Your task to perform on an android device: turn off javascript in the chrome app Image 0: 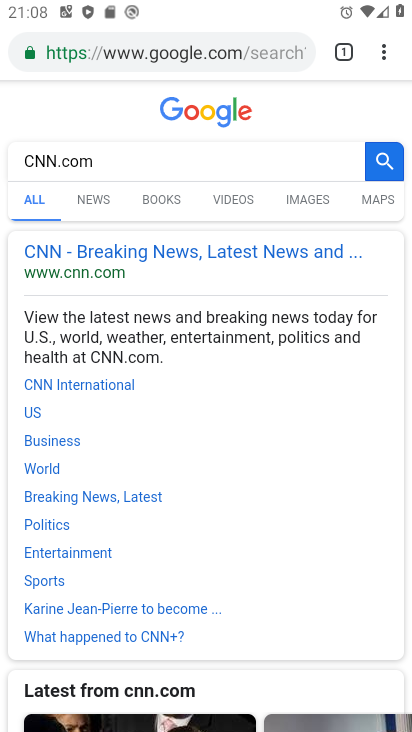
Step 0: click (388, 46)
Your task to perform on an android device: turn off javascript in the chrome app Image 1: 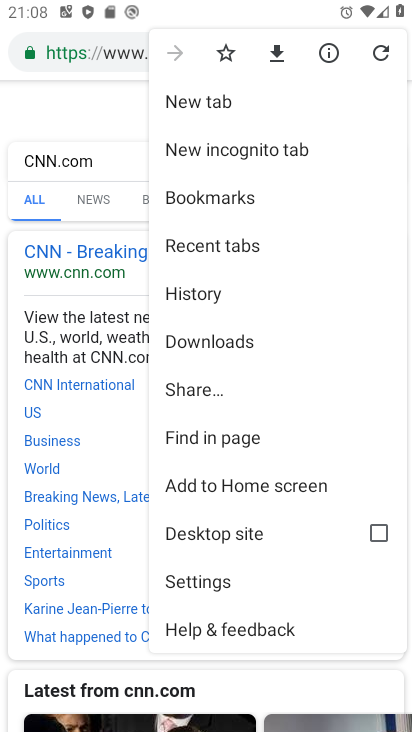
Step 1: click (200, 581)
Your task to perform on an android device: turn off javascript in the chrome app Image 2: 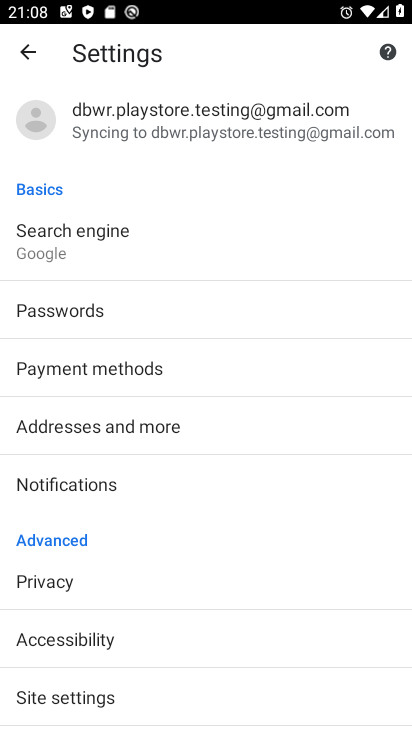
Step 2: click (69, 690)
Your task to perform on an android device: turn off javascript in the chrome app Image 3: 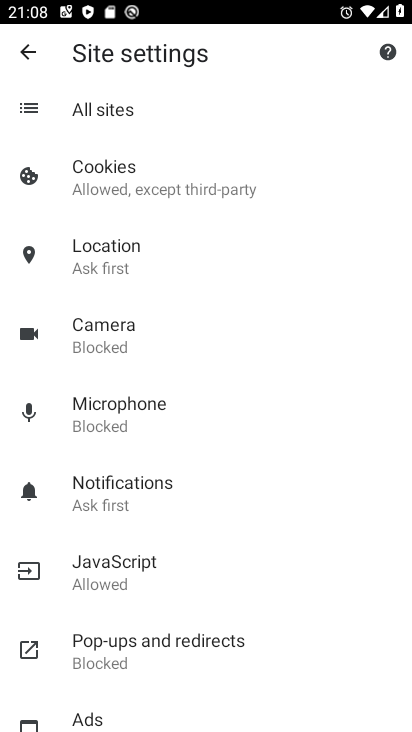
Step 3: click (154, 575)
Your task to perform on an android device: turn off javascript in the chrome app Image 4: 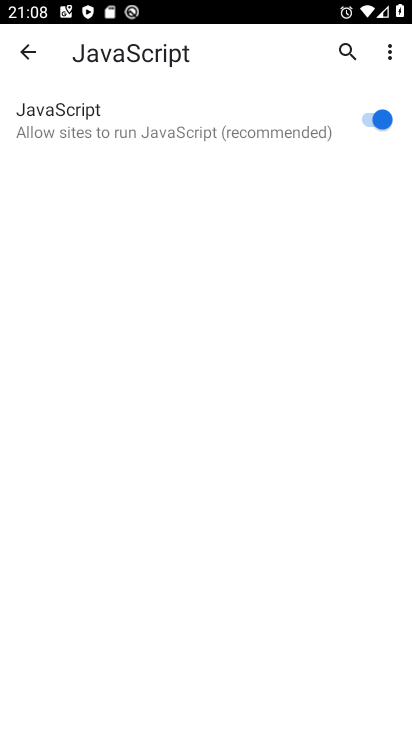
Step 4: click (363, 113)
Your task to perform on an android device: turn off javascript in the chrome app Image 5: 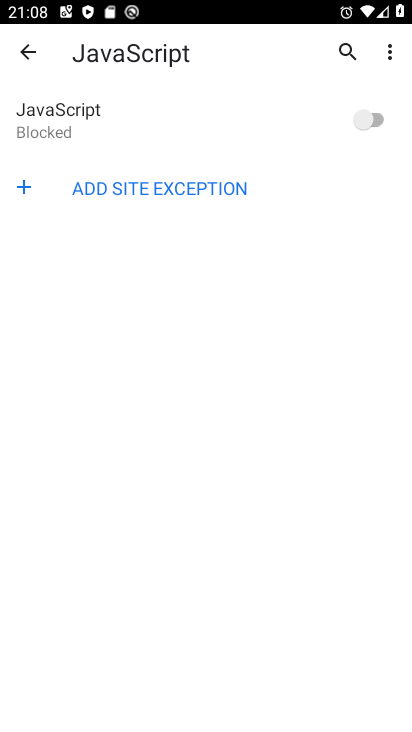
Step 5: task complete